Your task to perform on an android device: Open Yahoo.com Image 0: 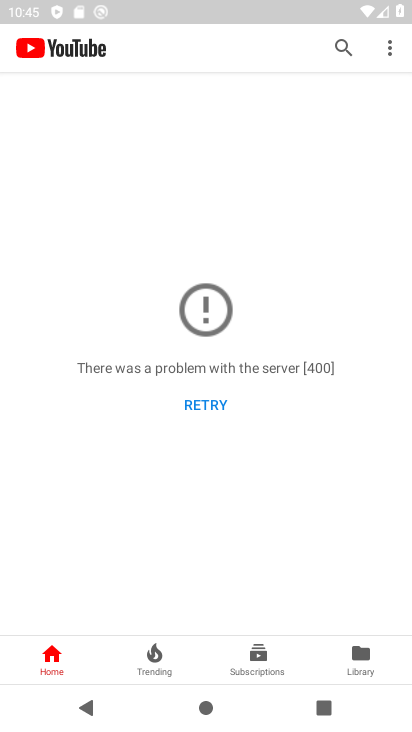
Step 0: press back button
Your task to perform on an android device: Open Yahoo.com Image 1: 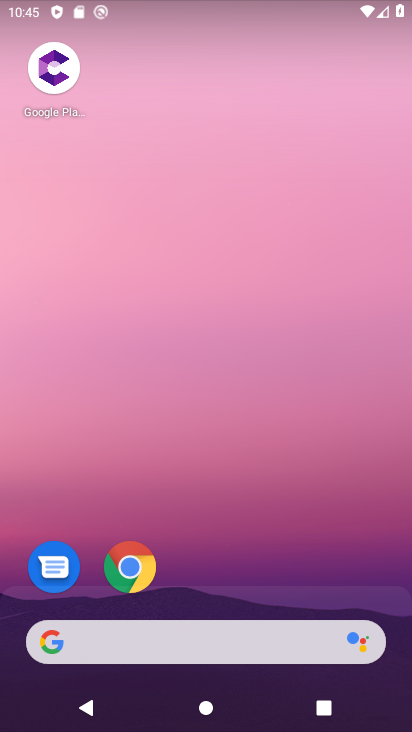
Step 1: click (129, 566)
Your task to perform on an android device: Open Yahoo.com Image 2: 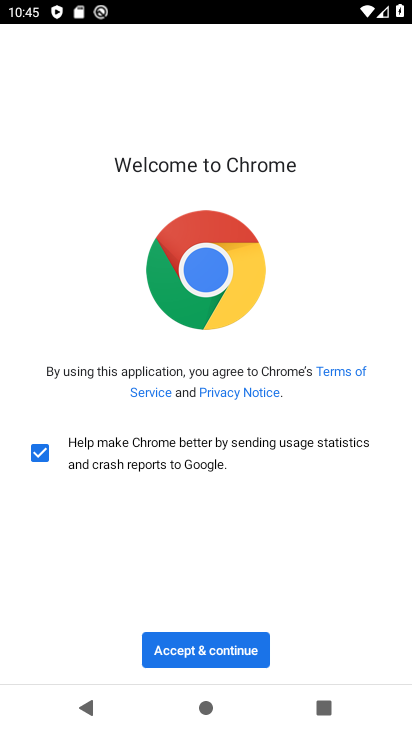
Step 2: click (222, 654)
Your task to perform on an android device: Open Yahoo.com Image 3: 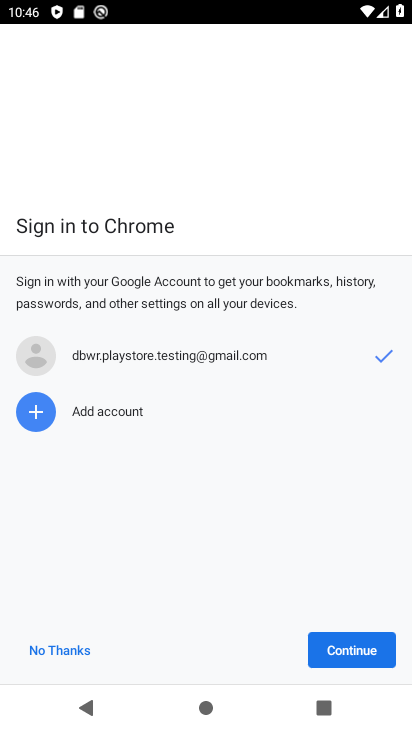
Step 3: click (336, 653)
Your task to perform on an android device: Open Yahoo.com Image 4: 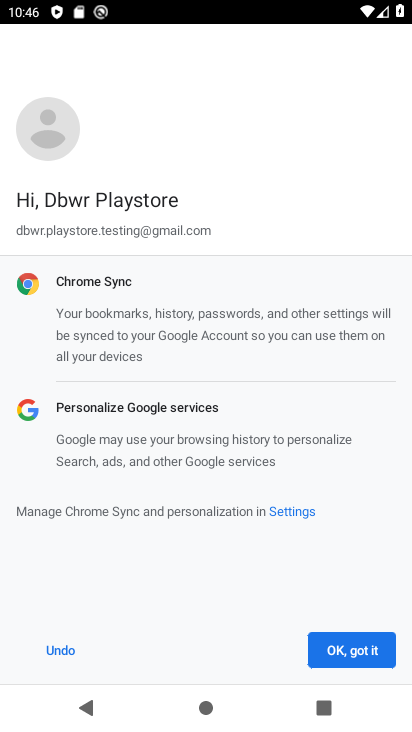
Step 4: click (336, 653)
Your task to perform on an android device: Open Yahoo.com Image 5: 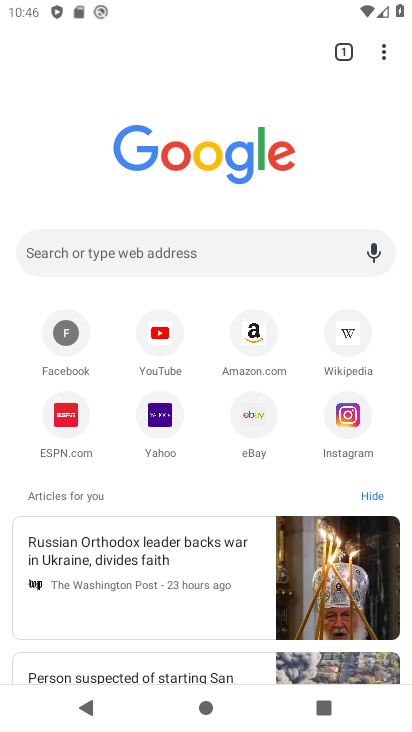
Step 5: click (157, 410)
Your task to perform on an android device: Open Yahoo.com Image 6: 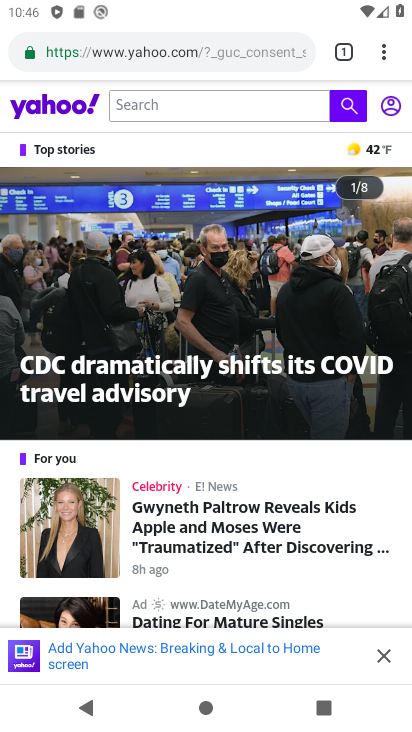
Step 6: task complete